Your task to perform on an android device: add a contact Image 0: 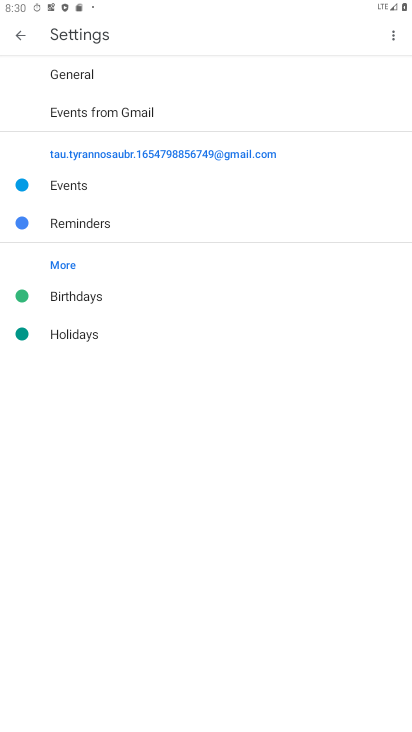
Step 0: press home button
Your task to perform on an android device: add a contact Image 1: 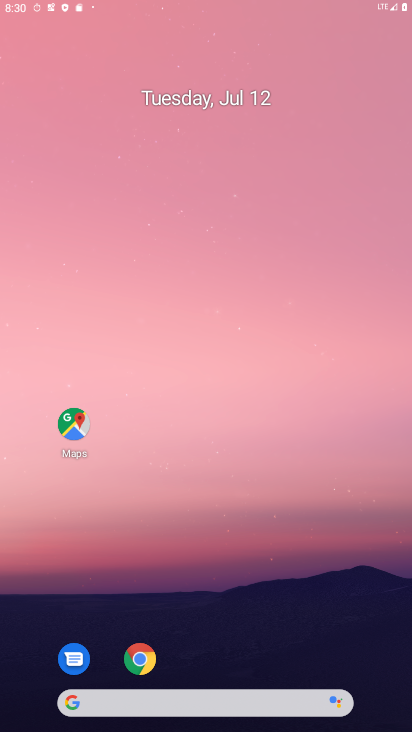
Step 1: drag from (389, 687) to (170, 37)
Your task to perform on an android device: add a contact Image 2: 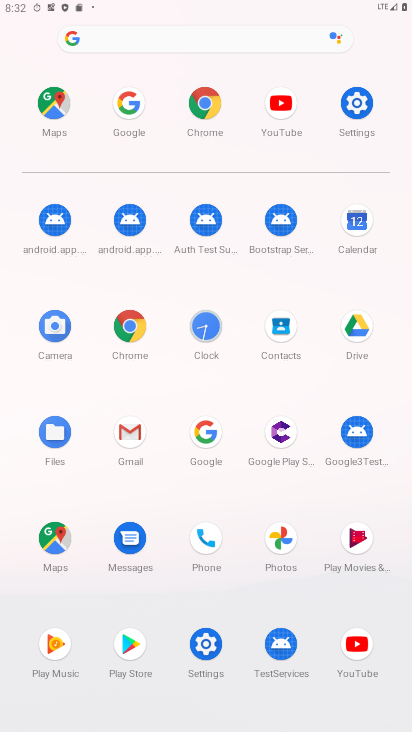
Step 2: click (272, 334)
Your task to perform on an android device: add a contact Image 3: 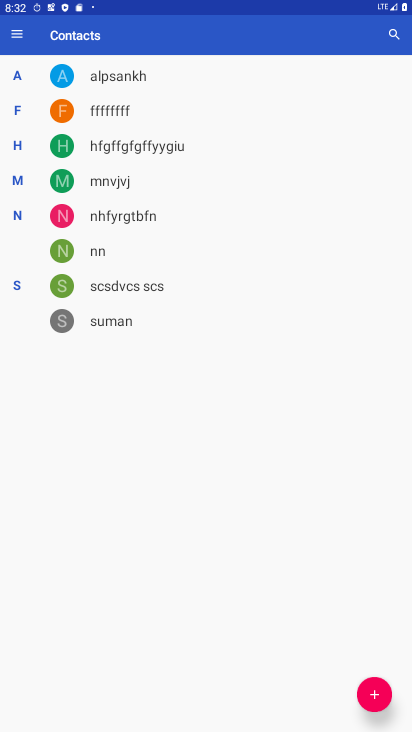
Step 3: click (369, 707)
Your task to perform on an android device: add a contact Image 4: 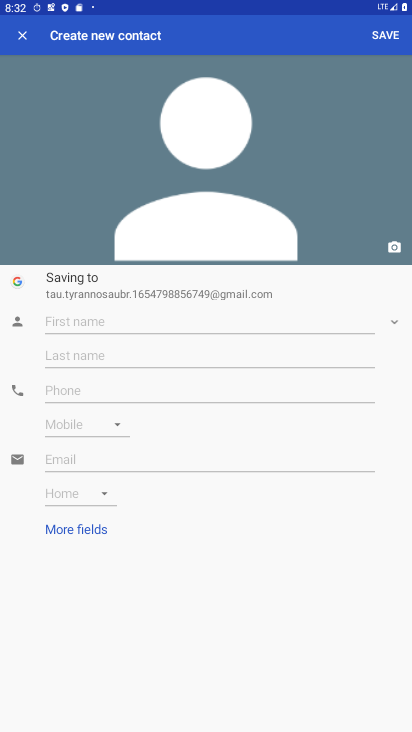
Step 4: click (98, 318)
Your task to perform on an android device: add a contact Image 5: 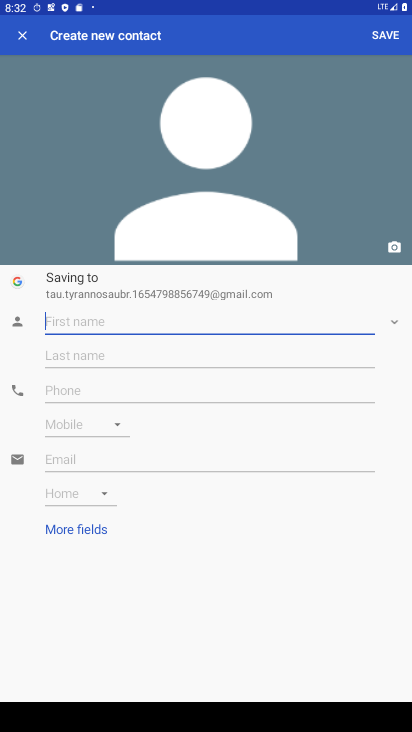
Step 5: type "sallu"
Your task to perform on an android device: add a contact Image 6: 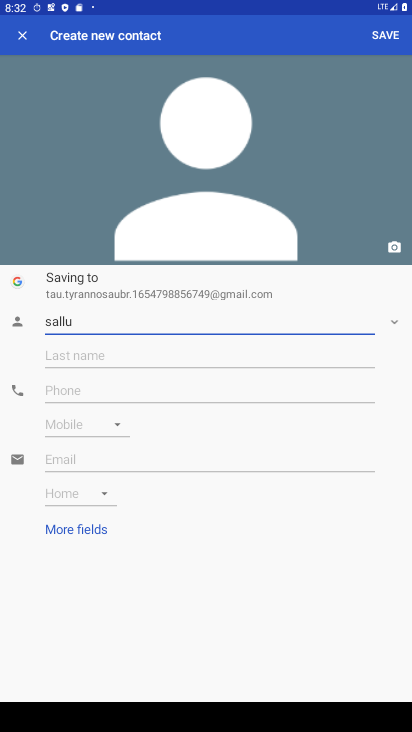
Step 6: click (378, 28)
Your task to perform on an android device: add a contact Image 7: 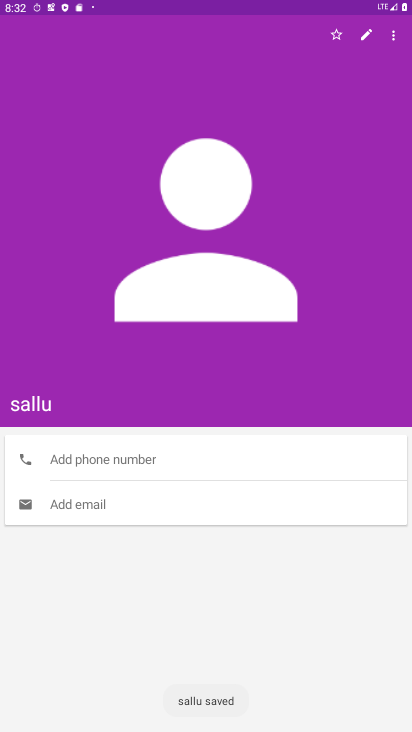
Step 7: task complete